Your task to perform on an android device: Open Google Image 0: 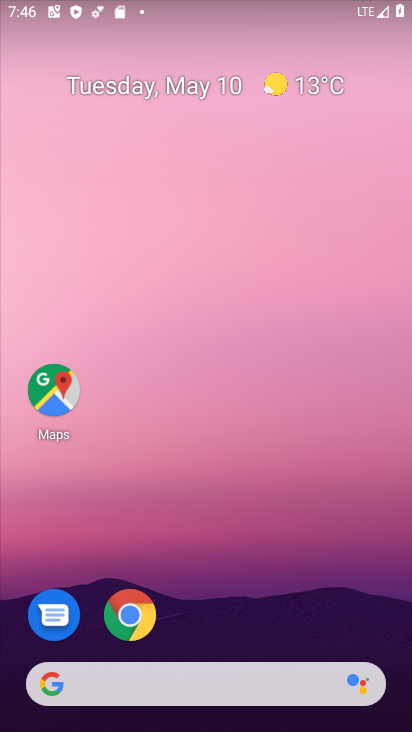
Step 0: drag from (231, 551) to (316, 6)
Your task to perform on an android device: Open Google Image 1: 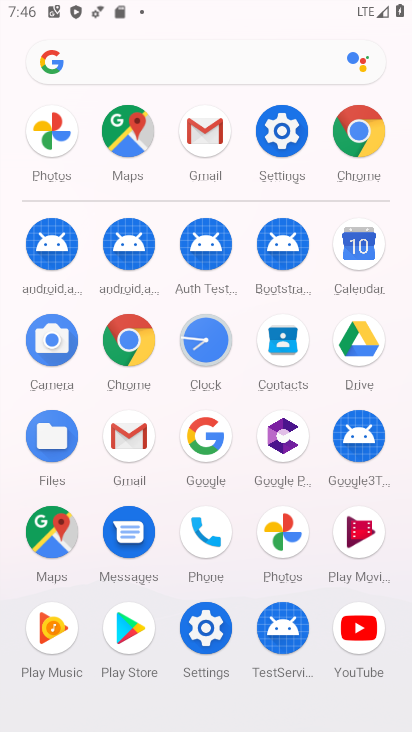
Step 1: click (184, 443)
Your task to perform on an android device: Open Google Image 2: 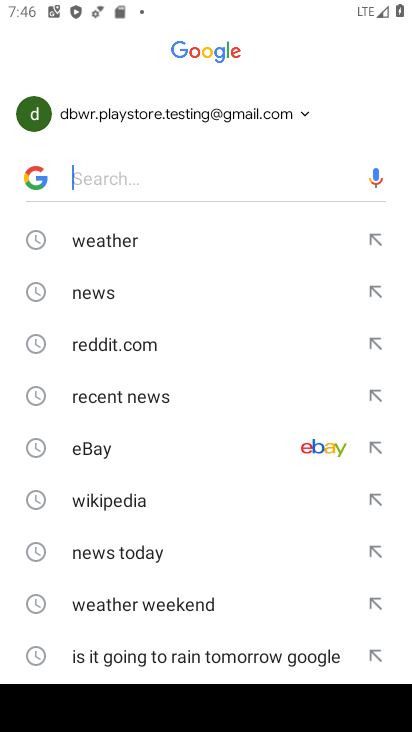
Step 2: task complete